Your task to perform on an android device: Open internet settings Image 0: 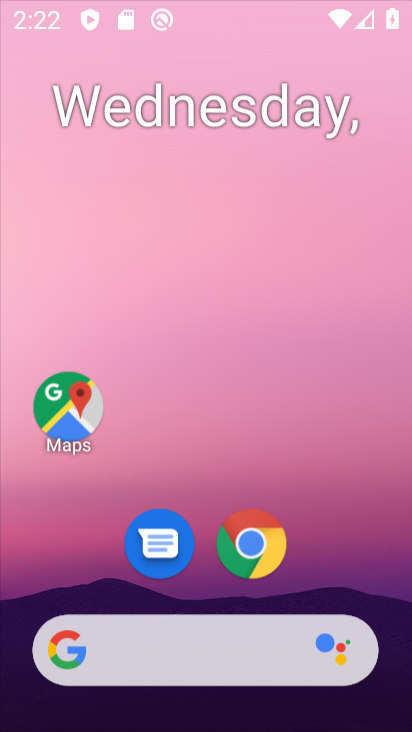
Step 0: press home button
Your task to perform on an android device: Open internet settings Image 1: 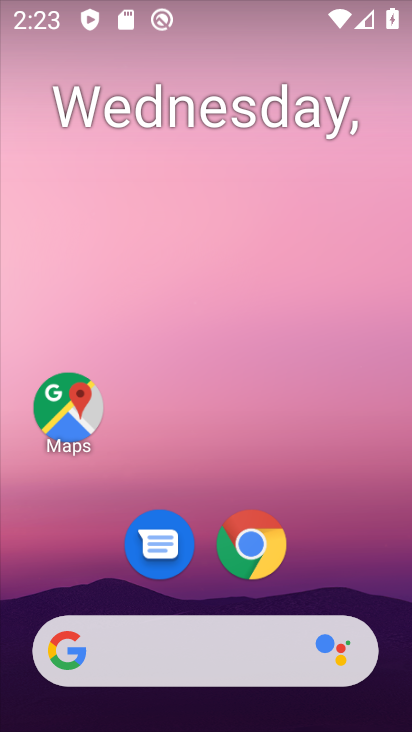
Step 1: drag from (218, 634) to (279, 59)
Your task to perform on an android device: Open internet settings Image 2: 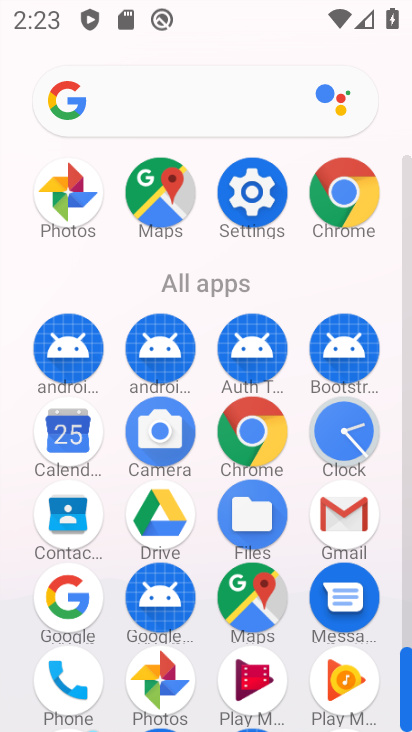
Step 2: click (253, 191)
Your task to perform on an android device: Open internet settings Image 3: 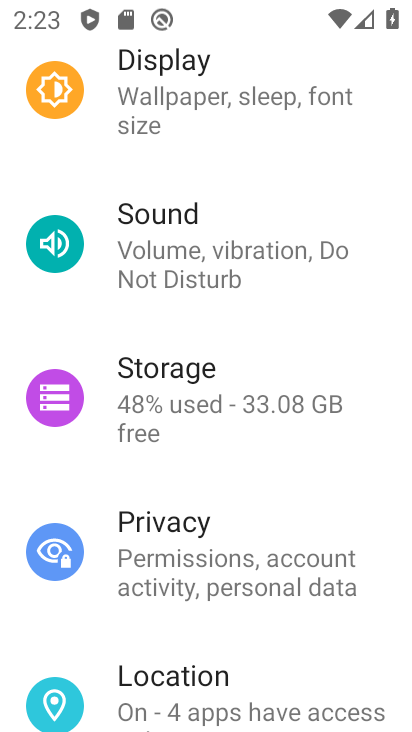
Step 3: drag from (284, 475) to (278, 573)
Your task to perform on an android device: Open internet settings Image 4: 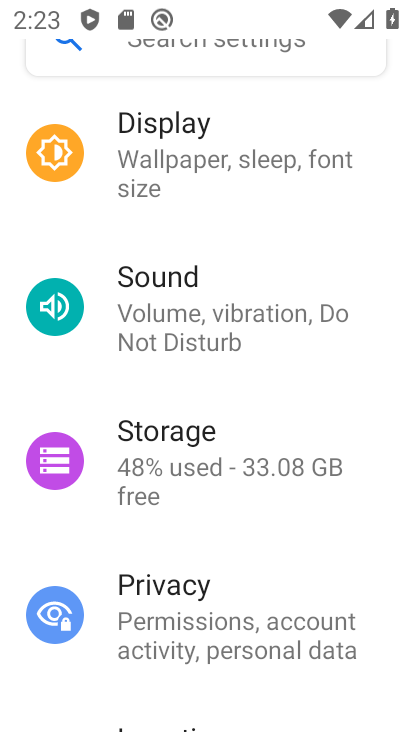
Step 4: drag from (289, 113) to (314, 559)
Your task to perform on an android device: Open internet settings Image 5: 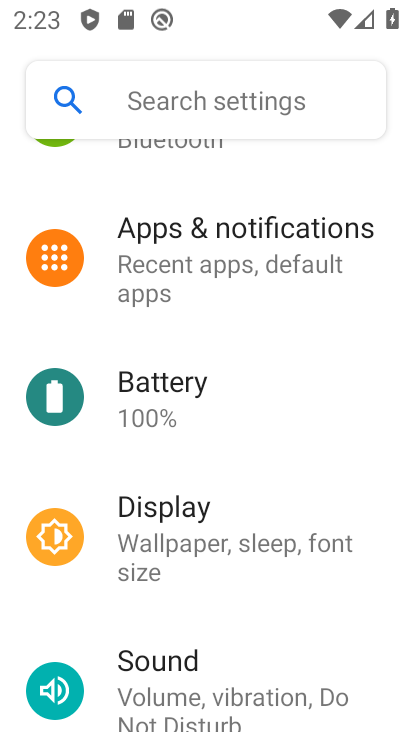
Step 5: drag from (287, 200) to (276, 613)
Your task to perform on an android device: Open internet settings Image 6: 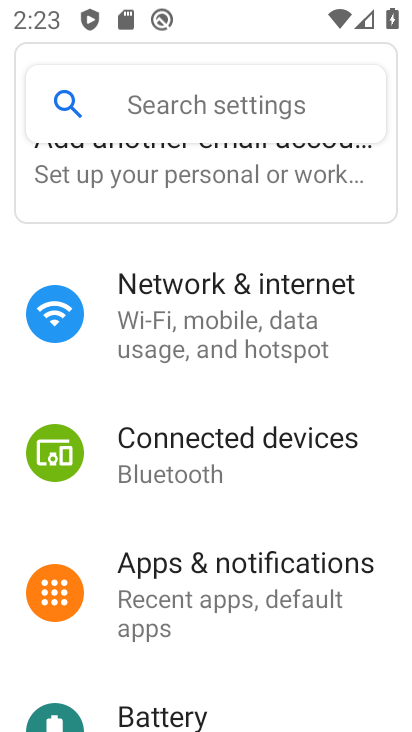
Step 6: click (250, 306)
Your task to perform on an android device: Open internet settings Image 7: 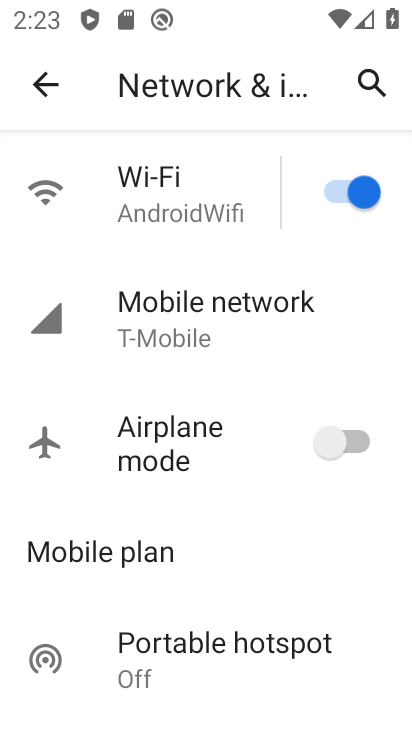
Step 7: task complete